Your task to perform on an android device: check google app version Image 0: 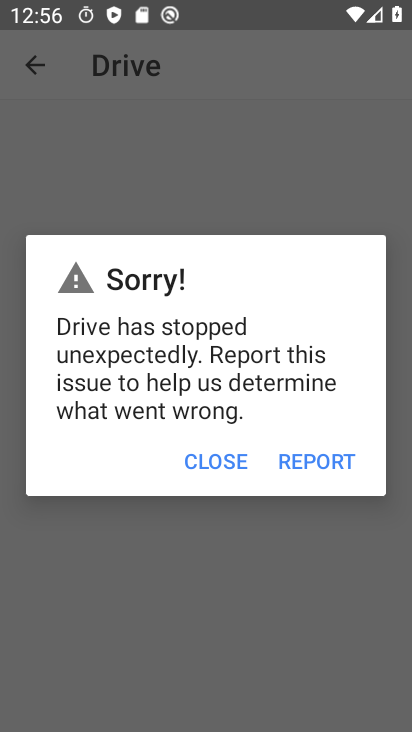
Step 0: press home button
Your task to perform on an android device: check google app version Image 1: 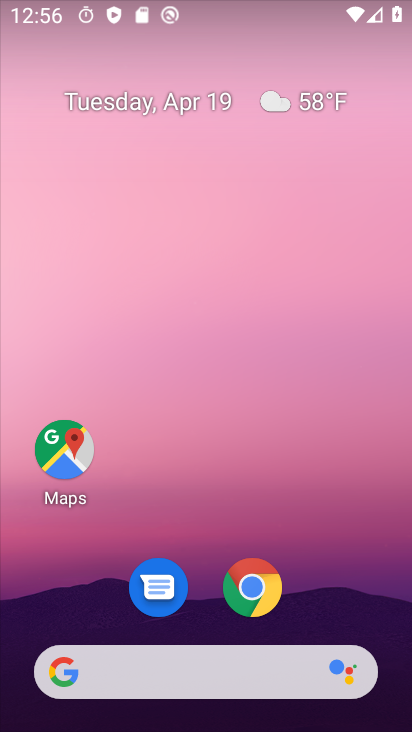
Step 1: drag from (365, 584) to (375, 139)
Your task to perform on an android device: check google app version Image 2: 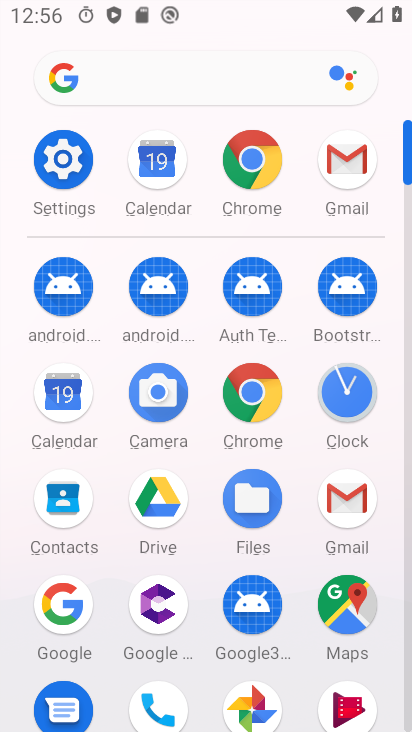
Step 2: click (70, 612)
Your task to perform on an android device: check google app version Image 3: 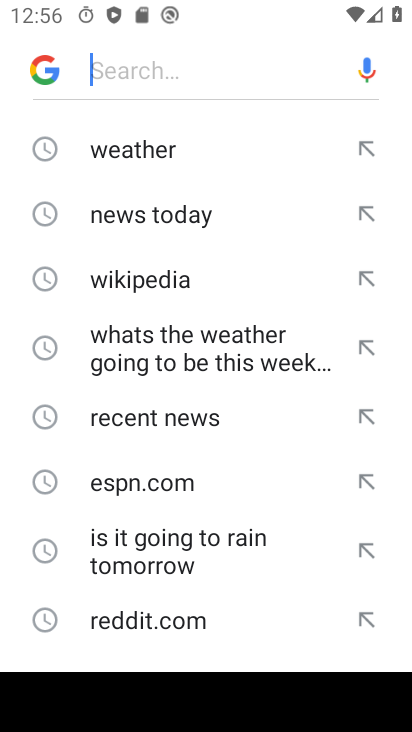
Step 3: press home button
Your task to perform on an android device: check google app version Image 4: 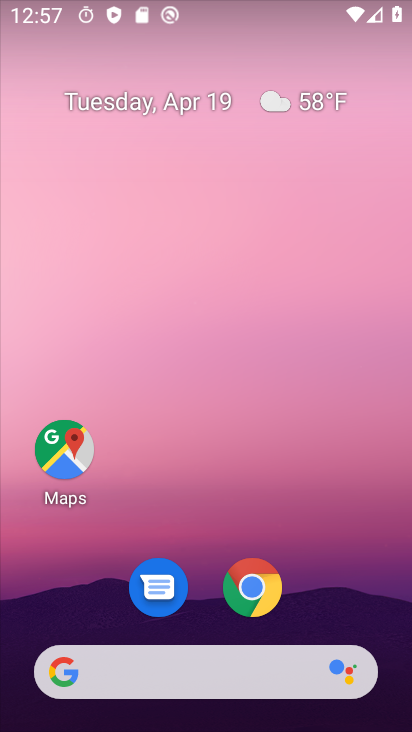
Step 4: drag from (346, 463) to (367, 118)
Your task to perform on an android device: check google app version Image 5: 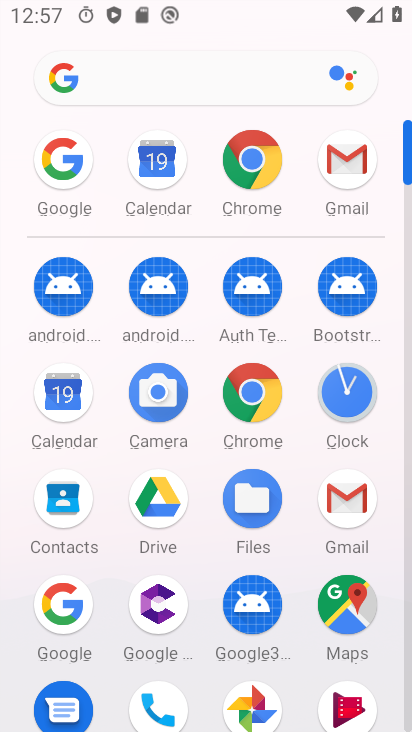
Step 5: click (44, 613)
Your task to perform on an android device: check google app version Image 6: 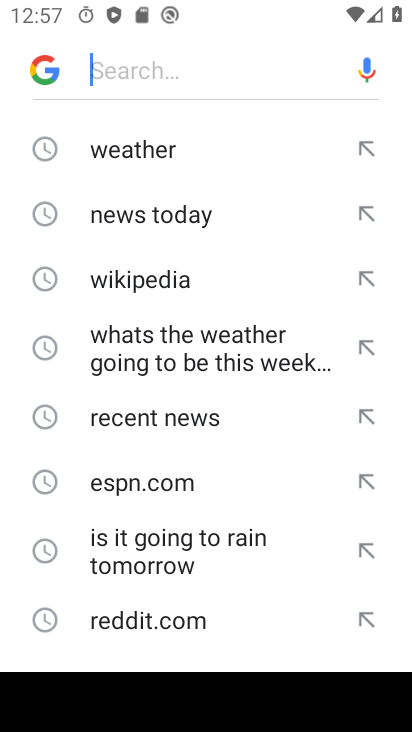
Step 6: task complete